Your task to perform on an android device: change keyboard looks Image 0: 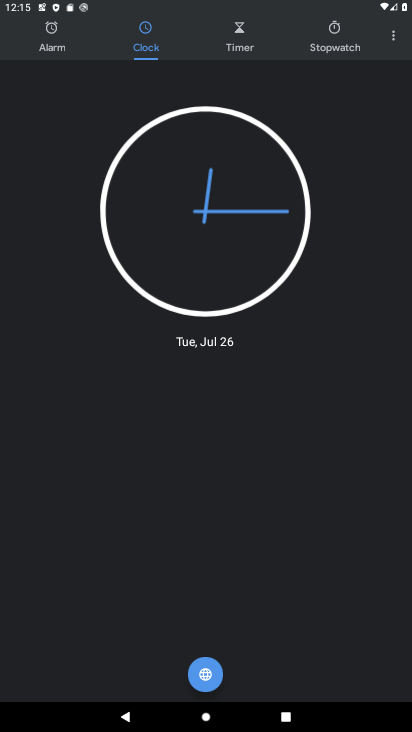
Step 0: press home button
Your task to perform on an android device: change keyboard looks Image 1: 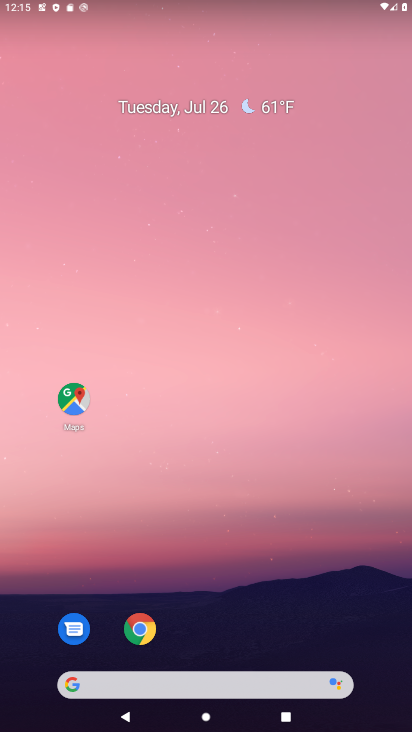
Step 1: drag from (222, 510) to (222, 261)
Your task to perform on an android device: change keyboard looks Image 2: 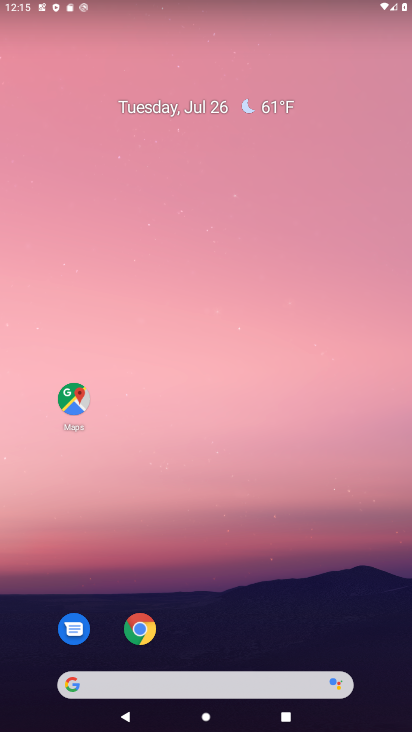
Step 2: drag from (213, 631) to (206, 134)
Your task to perform on an android device: change keyboard looks Image 3: 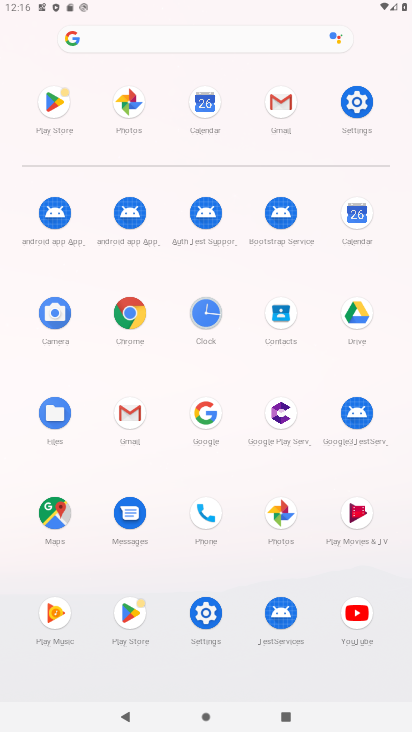
Step 3: click (352, 128)
Your task to perform on an android device: change keyboard looks Image 4: 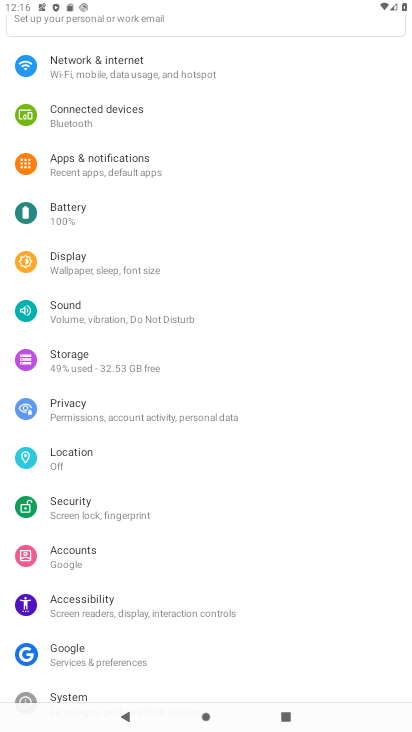
Step 4: drag from (99, 672) to (67, 324)
Your task to perform on an android device: change keyboard looks Image 5: 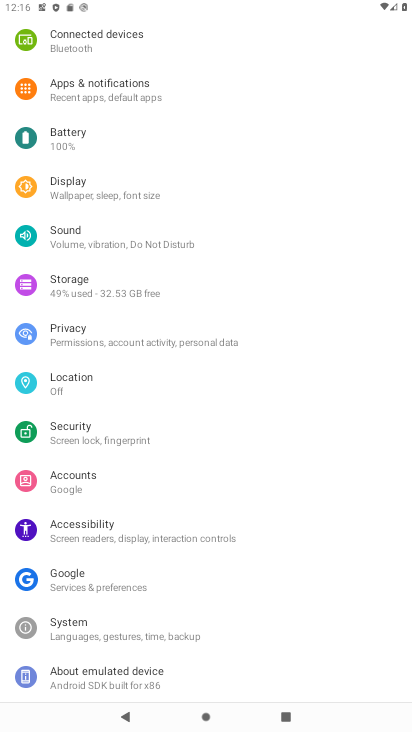
Step 5: click (114, 619)
Your task to perform on an android device: change keyboard looks Image 6: 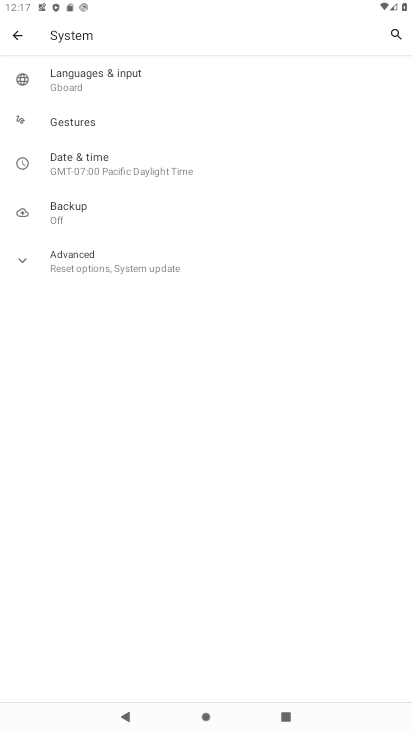
Step 6: click (110, 89)
Your task to perform on an android device: change keyboard looks Image 7: 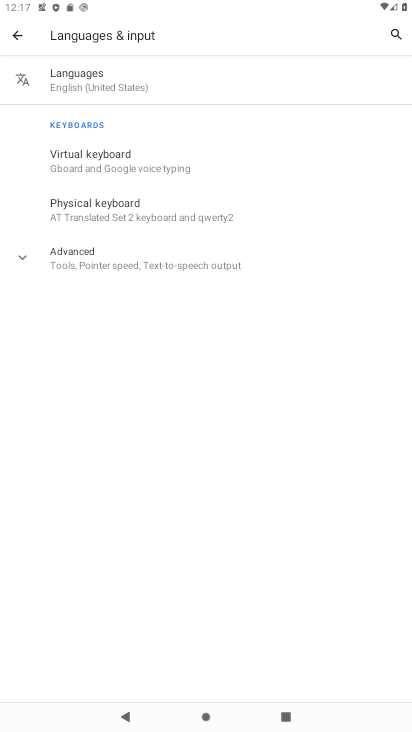
Step 7: click (118, 157)
Your task to perform on an android device: change keyboard looks Image 8: 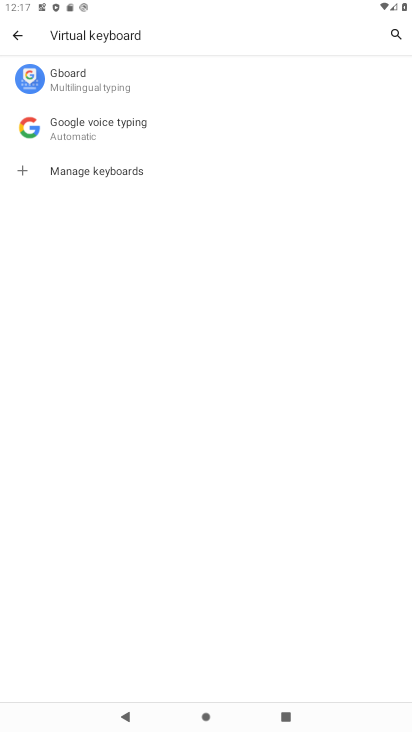
Step 8: click (82, 102)
Your task to perform on an android device: change keyboard looks Image 9: 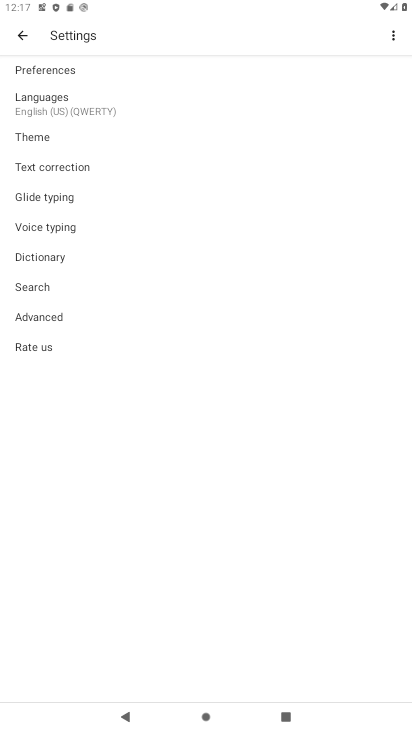
Step 9: click (77, 135)
Your task to perform on an android device: change keyboard looks Image 10: 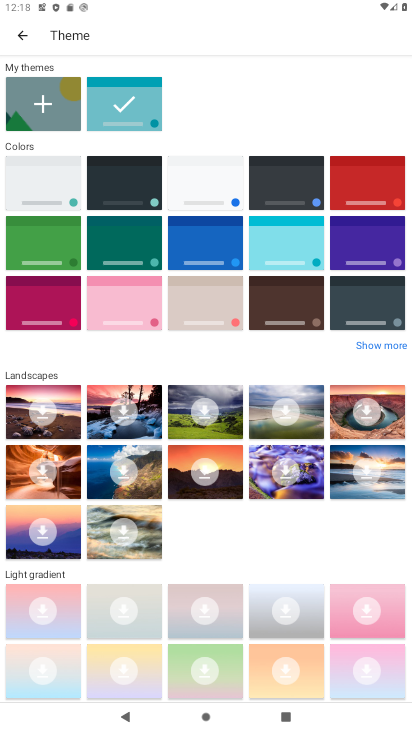
Step 10: click (271, 250)
Your task to perform on an android device: change keyboard looks Image 11: 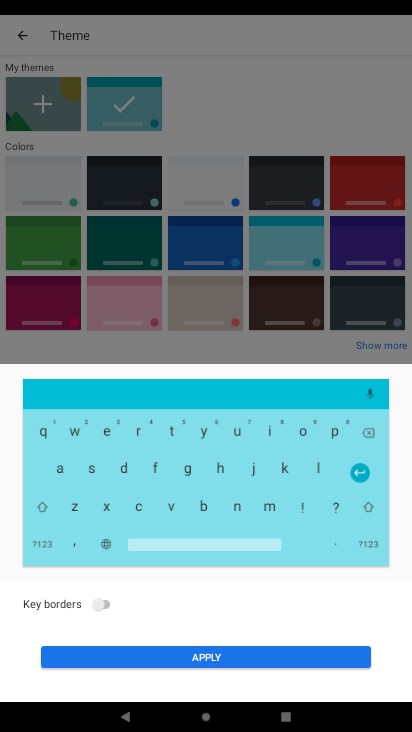
Step 11: click (249, 654)
Your task to perform on an android device: change keyboard looks Image 12: 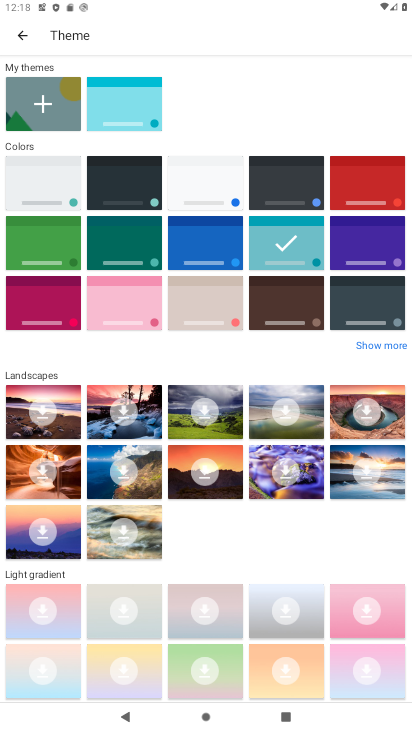
Step 12: click (187, 270)
Your task to perform on an android device: change keyboard looks Image 13: 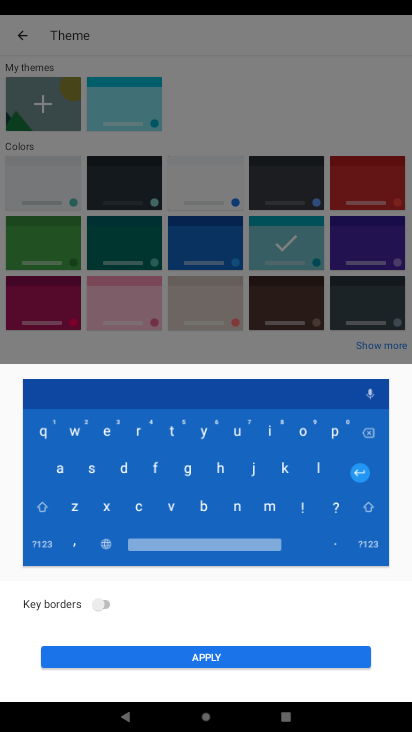
Step 13: click (192, 665)
Your task to perform on an android device: change keyboard looks Image 14: 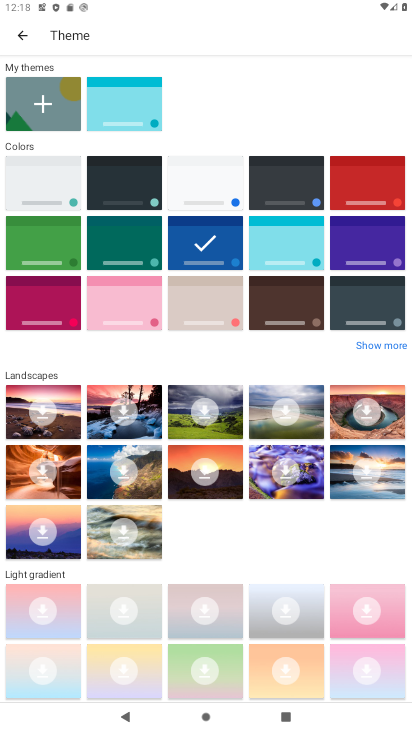
Step 14: task complete